Your task to perform on an android device: Play the last video I watched on Youtube Image 0: 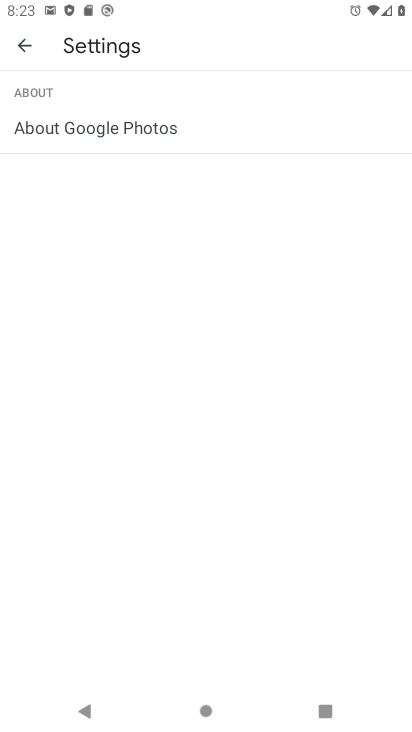
Step 0: press home button
Your task to perform on an android device: Play the last video I watched on Youtube Image 1: 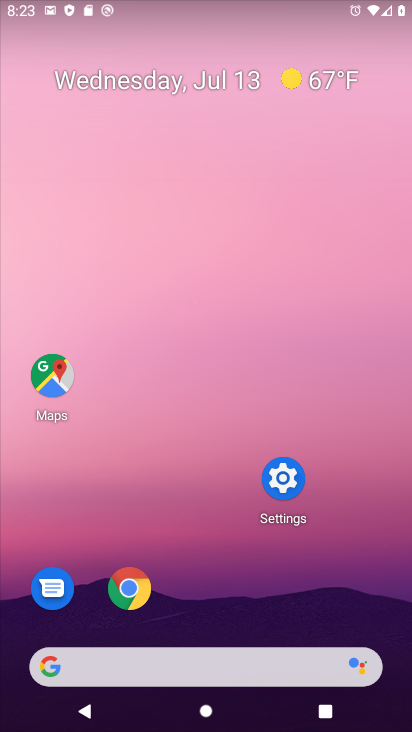
Step 1: drag from (284, 683) to (265, 203)
Your task to perform on an android device: Play the last video I watched on Youtube Image 2: 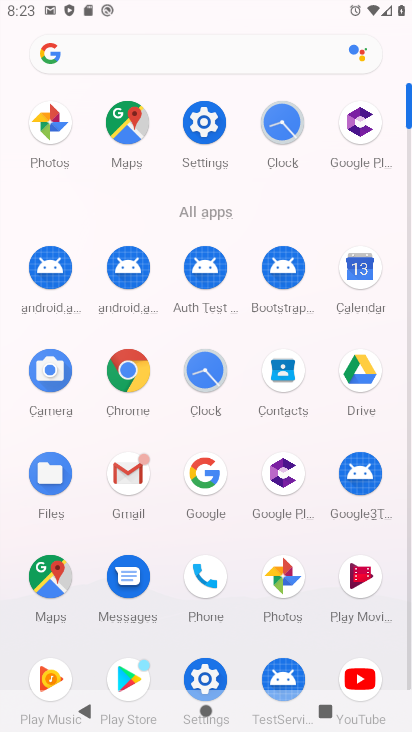
Step 2: click (362, 674)
Your task to perform on an android device: Play the last video I watched on Youtube Image 3: 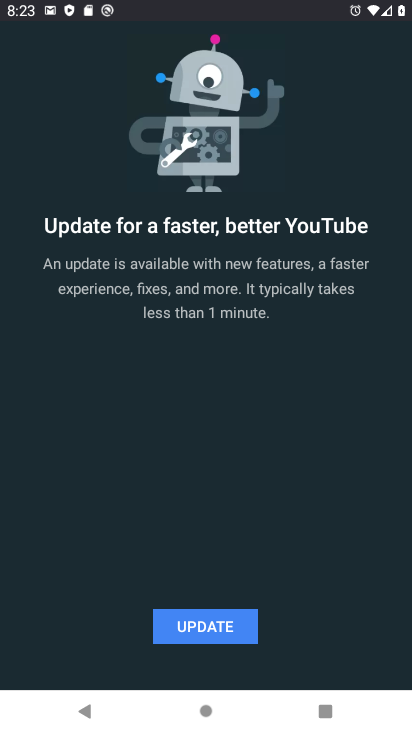
Step 3: click (203, 641)
Your task to perform on an android device: Play the last video I watched on Youtube Image 4: 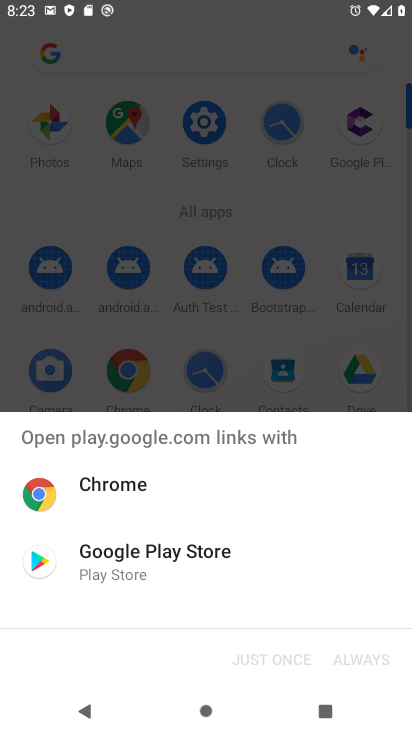
Step 4: click (124, 548)
Your task to perform on an android device: Play the last video I watched on Youtube Image 5: 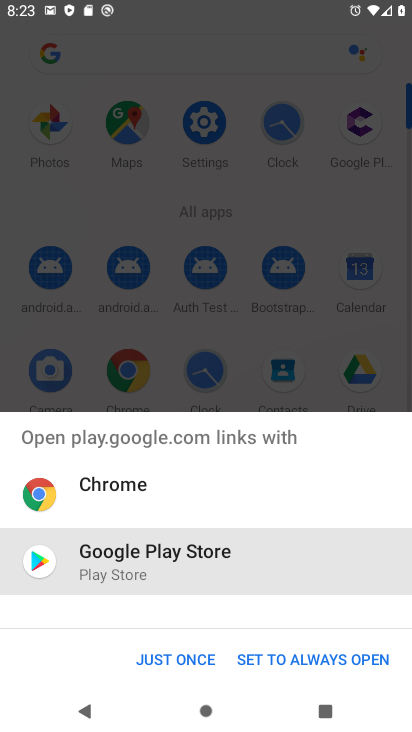
Step 5: click (175, 650)
Your task to perform on an android device: Play the last video I watched on Youtube Image 6: 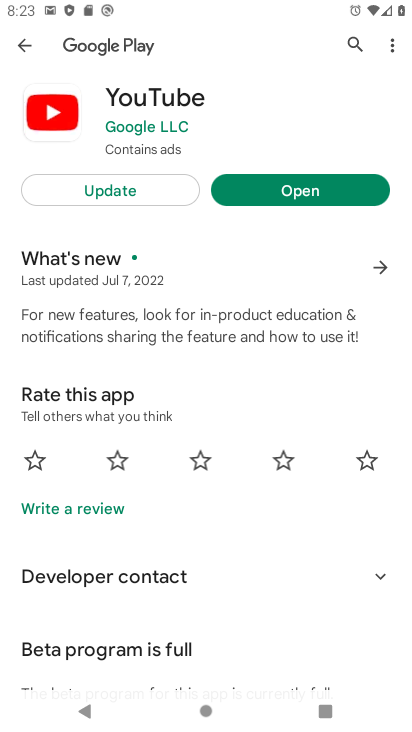
Step 6: click (113, 187)
Your task to perform on an android device: Play the last video I watched on Youtube Image 7: 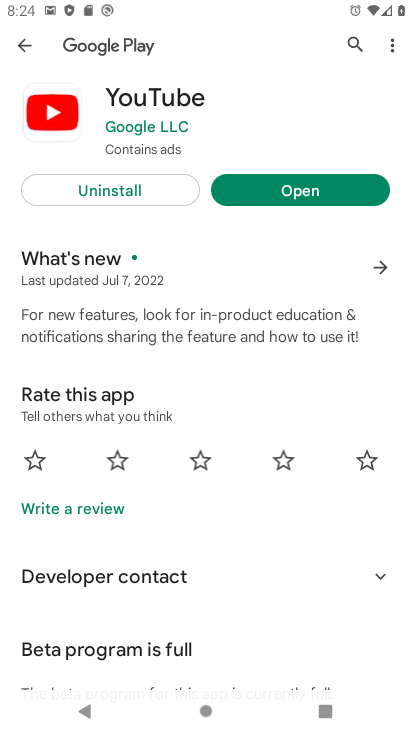
Step 7: click (283, 186)
Your task to perform on an android device: Play the last video I watched on Youtube Image 8: 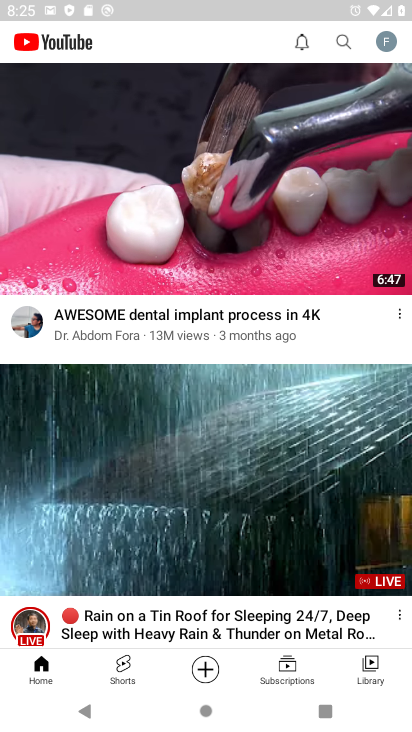
Step 8: click (363, 669)
Your task to perform on an android device: Play the last video I watched on Youtube Image 9: 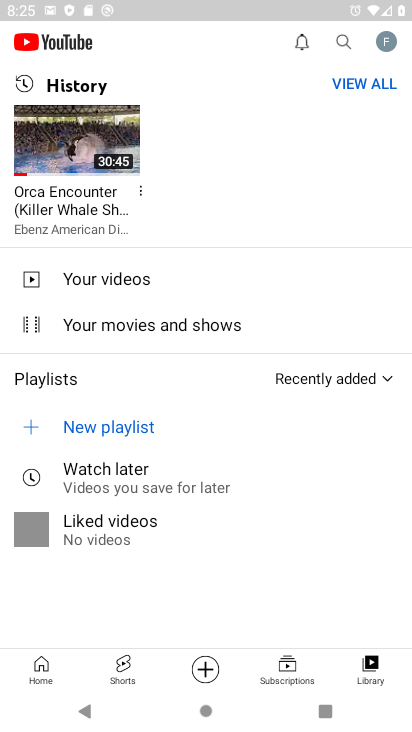
Step 9: click (89, 156)
Your task to perform on an android device: Play the last video I watched on Youtube Image 10: 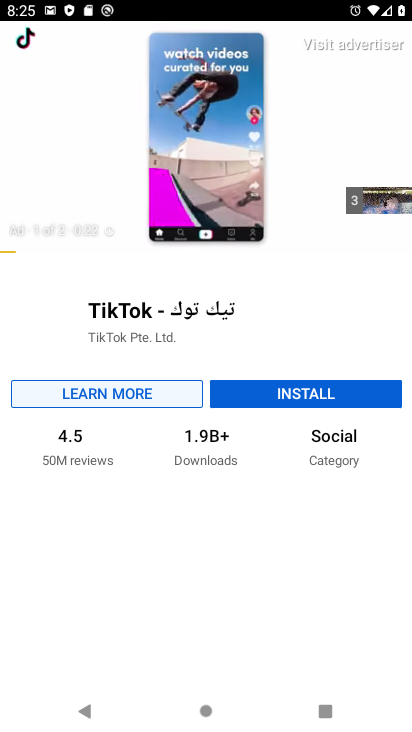
Step 10: click (206, 149)
Your task to perform on an android device: Play the last video I watched on Youtube Image 11: 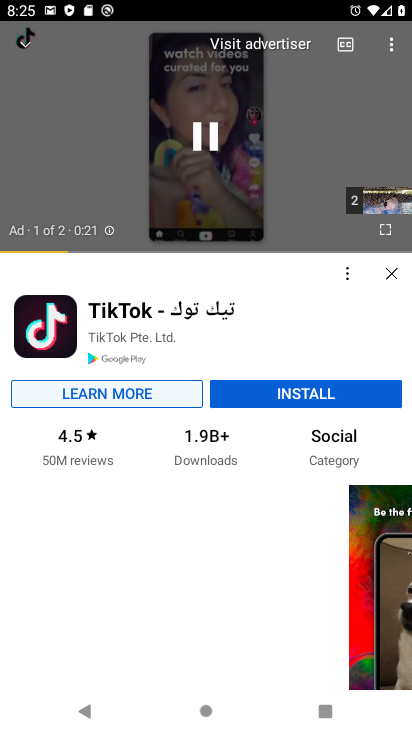
Step 11: click (198, 149)
Your task to perform on an android device: Play the last video I watched on Youtube Image 12: 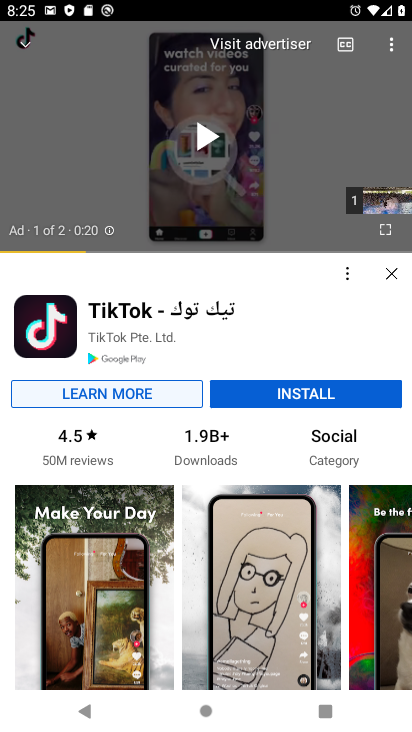
Step 12: task complete